Your task to perform on an android device: Go to ESPN.com Image 0: 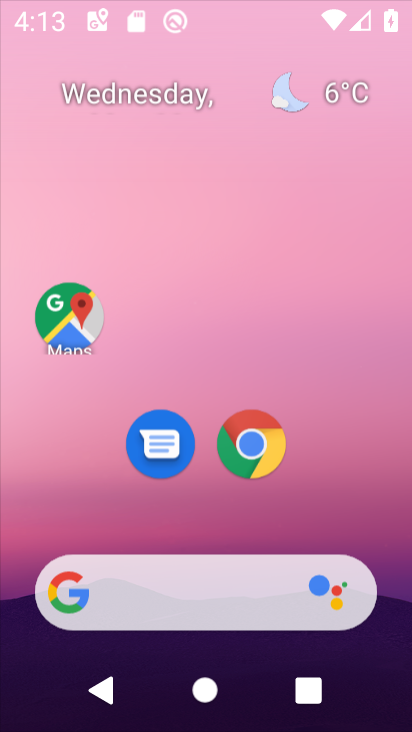
Step 0: drag from (215, 409) to (264, 1)
Your task to perform on an android device: Go to ESPN.com Image 1: 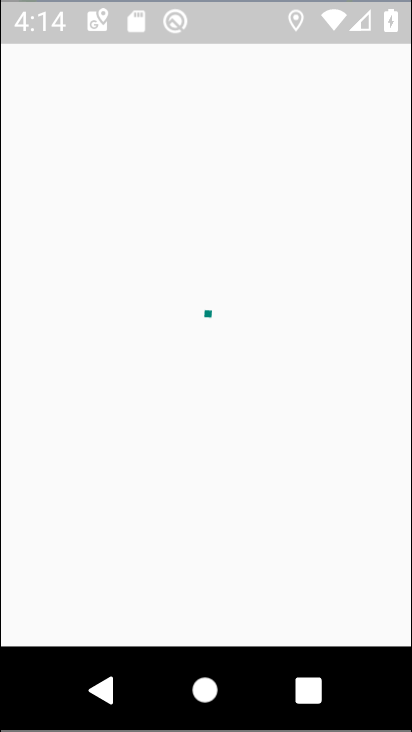
Step 1: click (364, 433)
Your task to perform on an android device: Go to ESPN.com Image 2: 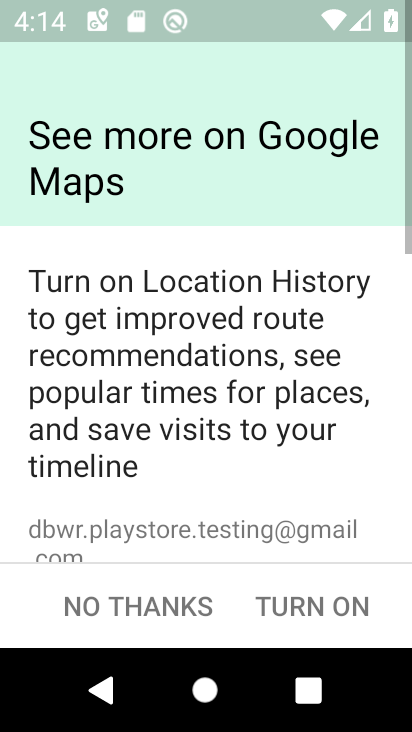
Step 2: press home button
Your task to perform on an android device: Go to ESPN.com Image 3: 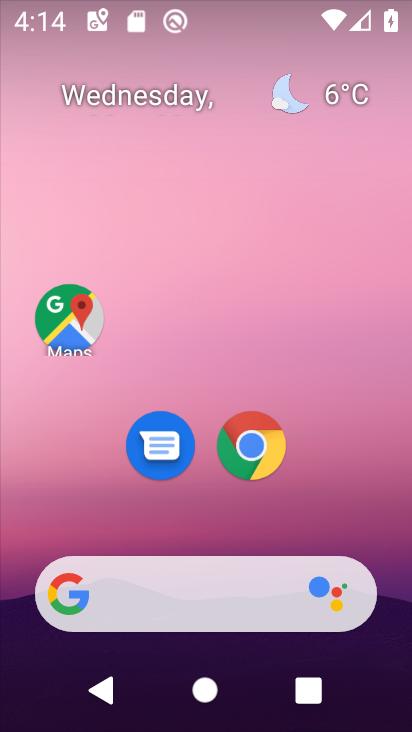
Step 3: click (260, 457)
Your task to perform on an android device: Go to ESPN.com Image 4: 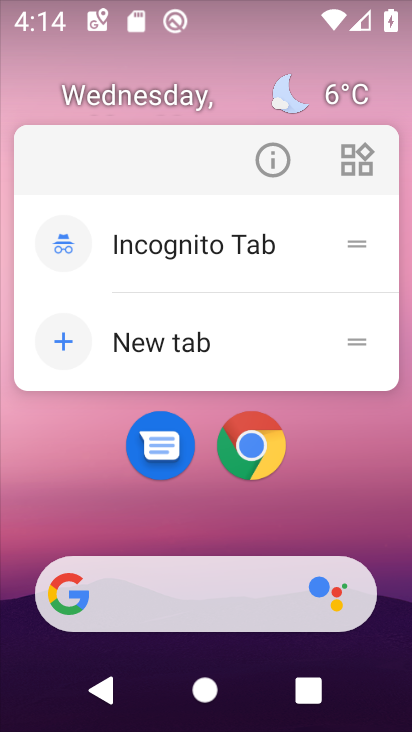
Step 4: click (258, 452)
Your task to perform on an android device: Go to ESPN.com Image 5: 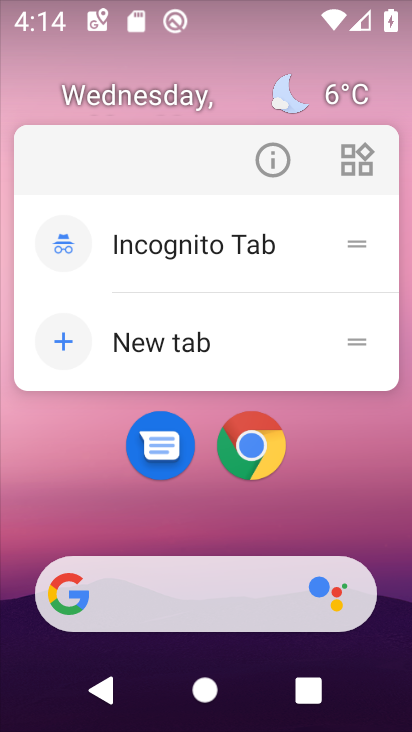
Step 5: click (258, 452)
Your task to perform on an android device: Go to ESPN.com Image 6: 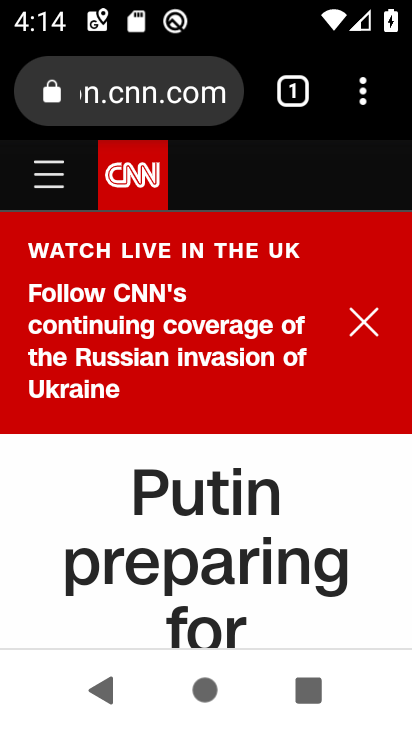
Step 6: click (136, 97)
Your task to perform on an android device: Go to ESPN.com Image 7: 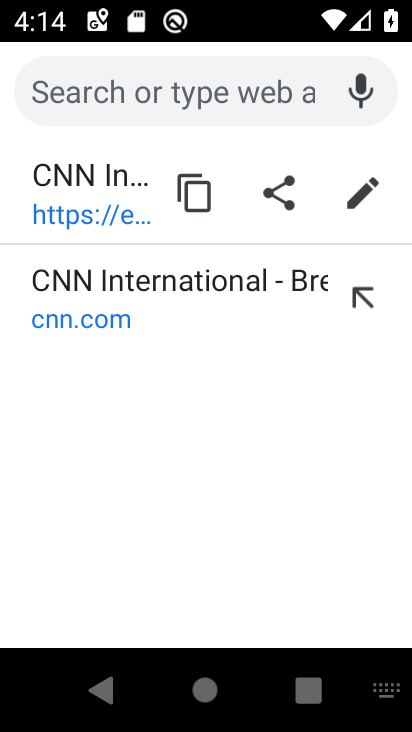
Step 7: type "ESPN.com"
Your task to perform on an android device: Go to ESPN.com Image 8: 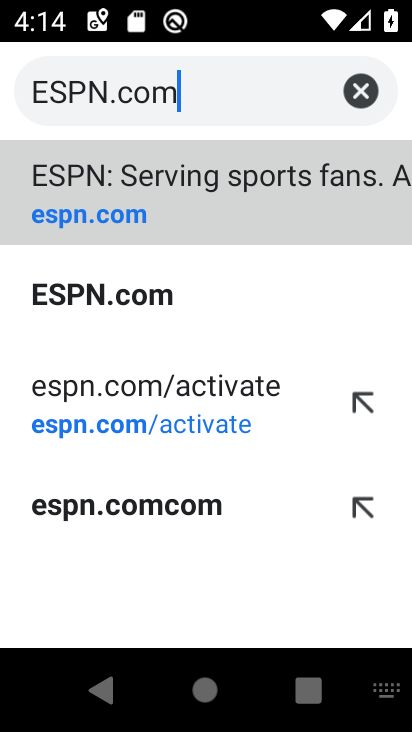
Step 8: click (140, 301)
Your task to perform on an android device: Go to ESPN.com Image 9: 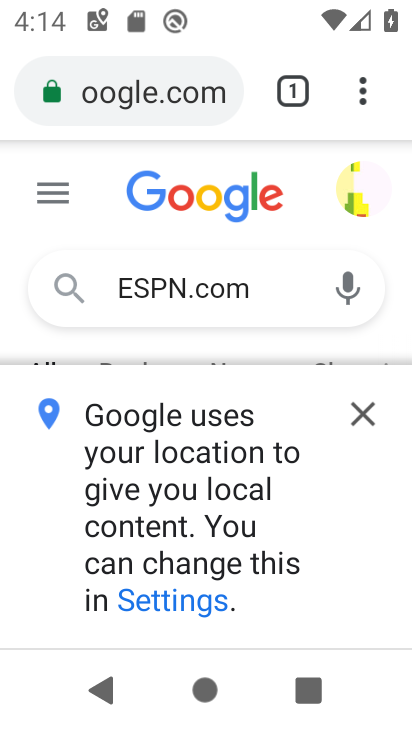
Step 9: click (357, 415)
Your task to perform on an android device: Go to ESPN.com Image 10: 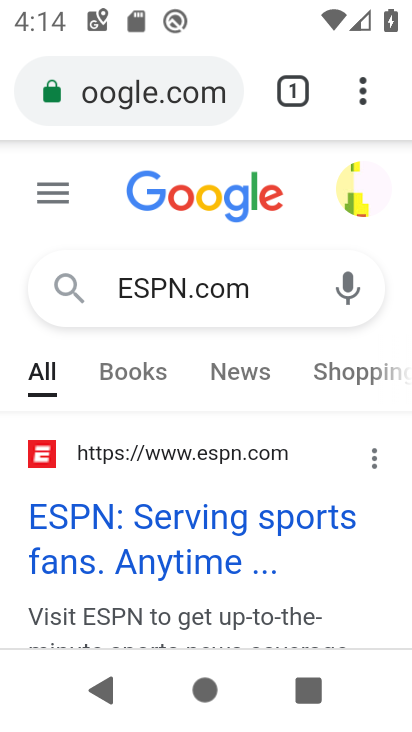
Step 10: task complete